Your task to perform on an android device: delete a single message in the gmail app Image 0: 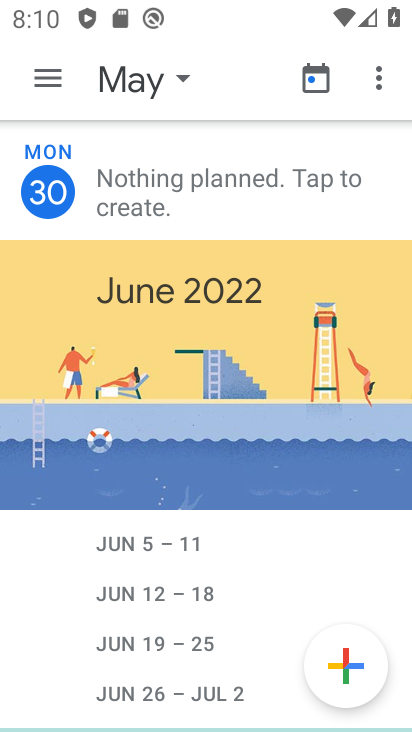
Step 0: press home button
Your task to perform on an android device: delete a single message in the gmail app Image 1: 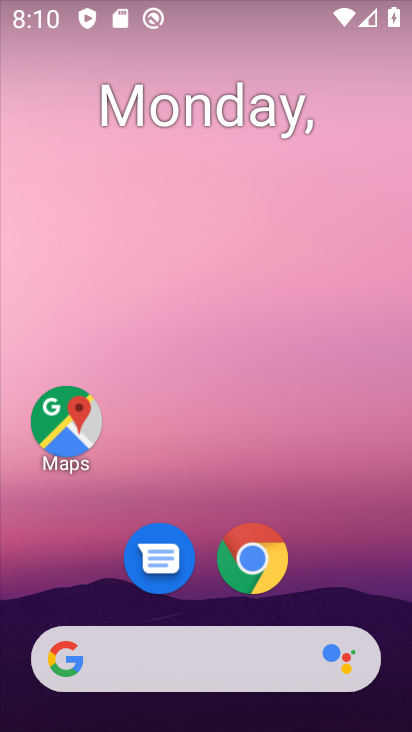
Step 1: drag from (301, 387) to (316, 182)
Your task to perform on an android device: delete a single message in the gmail app Image 2: 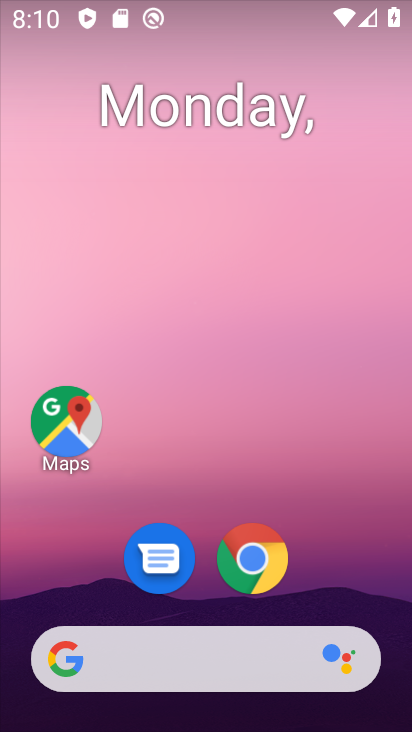
Step 2: drag from (320, 525) to (326, 152)
Your task to perform on an android device: delete a single message in the gmail app Image 3: 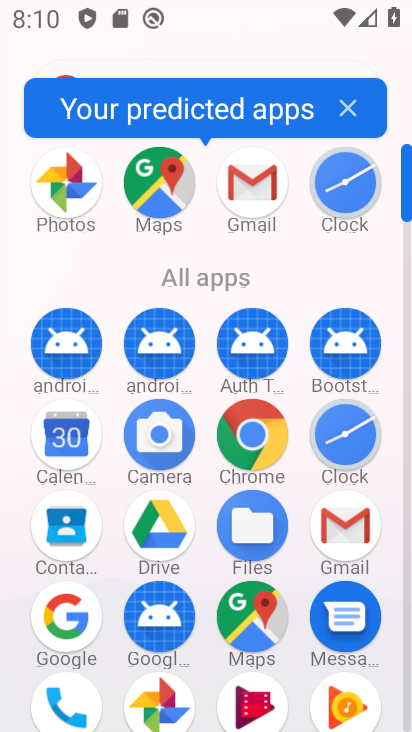
Step 3: click (264, 203)
Your task to perform on an android device: delete a single message in the gmail app Image 4: 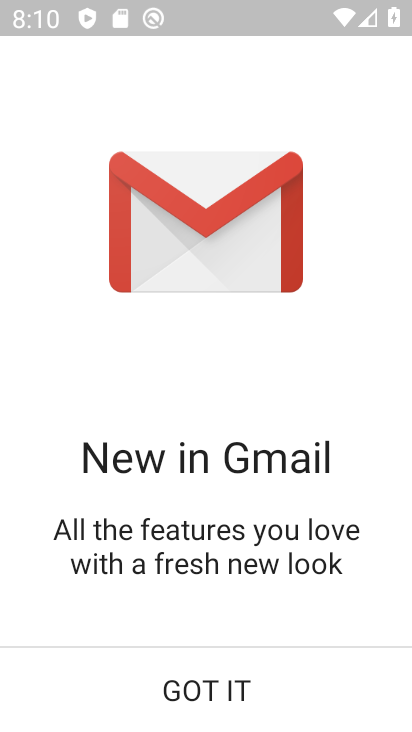
Step 4: click (155, 669)
Your task to perform on an android device: delete a single message in the gmail app Image 5: 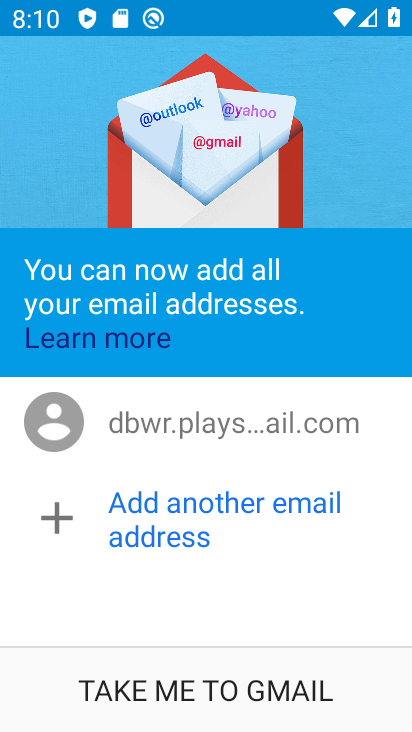
Step 5: click (157, 706)
Your task to perform on an android device: delete a single message in the gmail app Image 6: 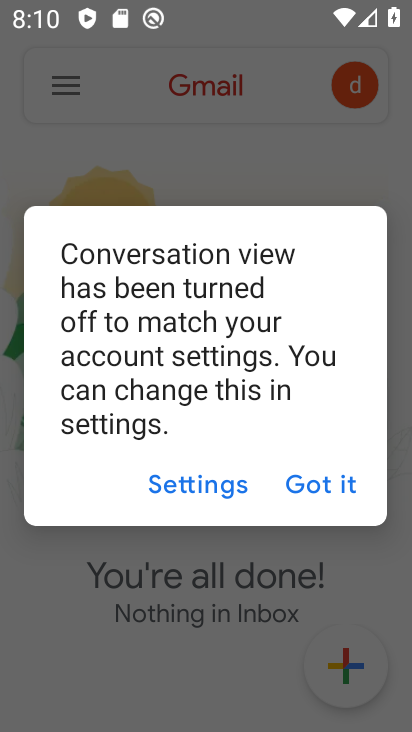
Step 6: click (323, 495)
Your task to perform on an android device: delete a single message in the gmail app Image 7: 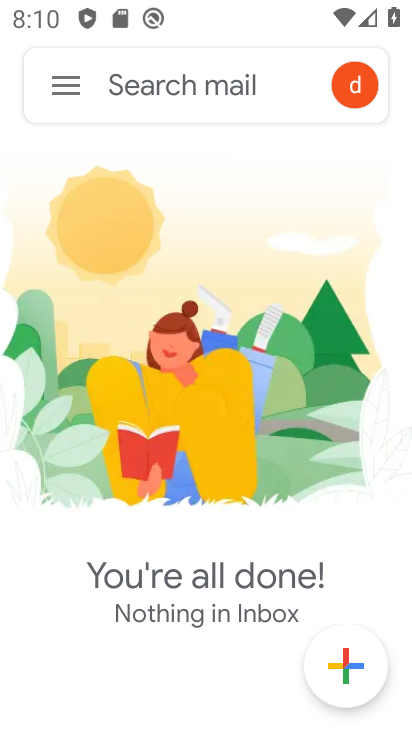
Step 7: click (78, 93)
Your task to perform on an android device: delete a single message in the gmail app Image 8: 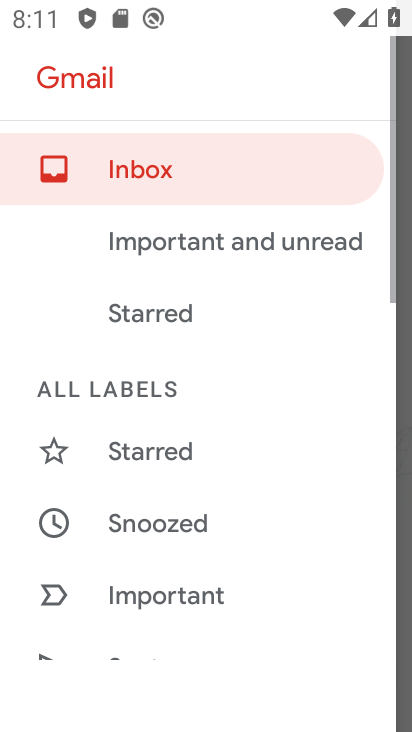
Step 8: drag from (249, 639) to (235, 196)
Your task to perform on an android device: delete a single message in the gmail app Image 9: 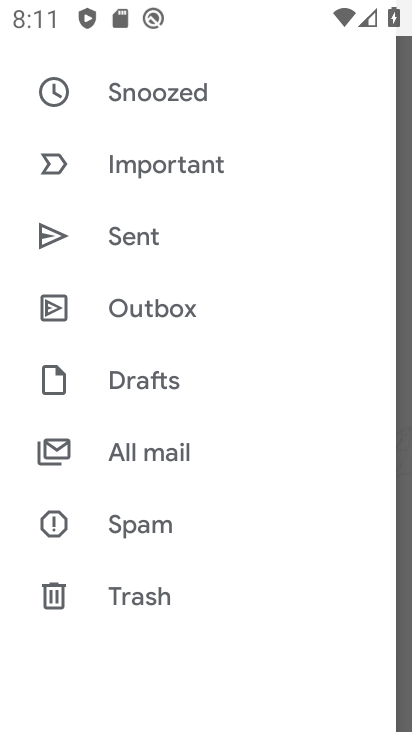
Step 9: click (150, 448)
Your task to perform on an android device: delete a single message in the gmail app Image 10: 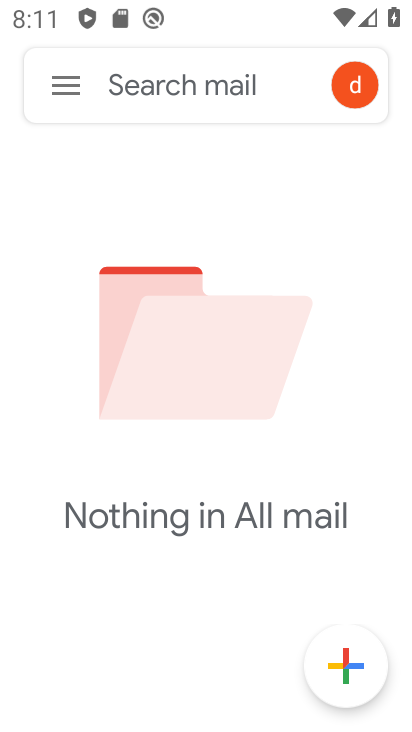
Step 10: task complete